Your task to perform on an android device: Open Android settings Image 0: 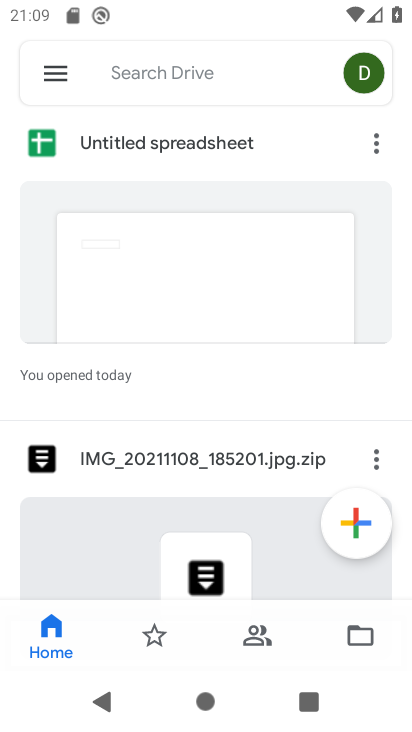
Step 0: press home button
Your task to perform on an android device: Open Android settings Image 1: 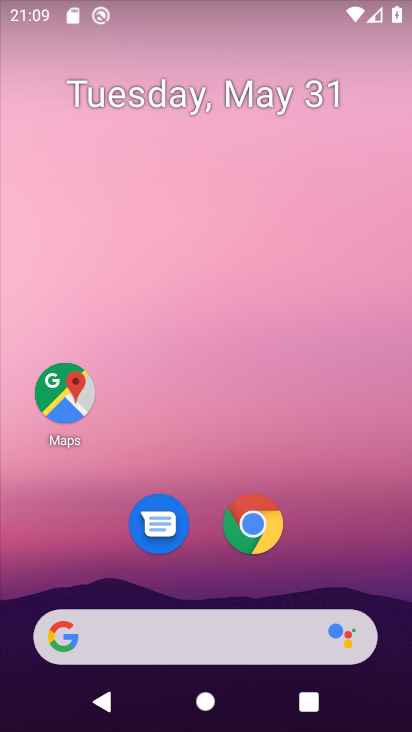
Step 1: drag from (188, 488) to (209, 19)
Your task to perform on an android device: Open Android settings Image 2: 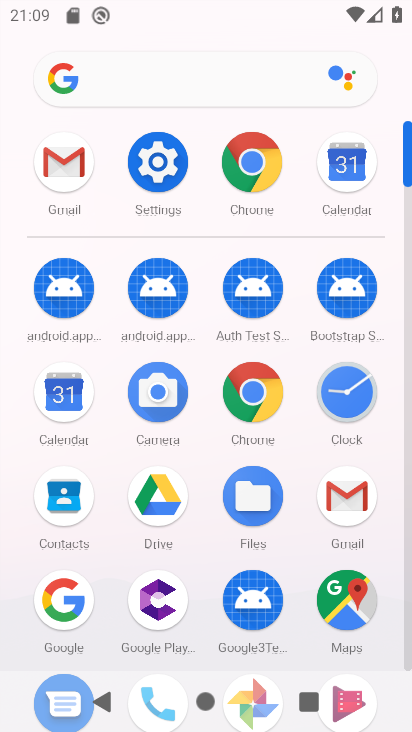
Step 2: click (158, 163)
Your task to perform on an android device: Open Android settings Image 3: 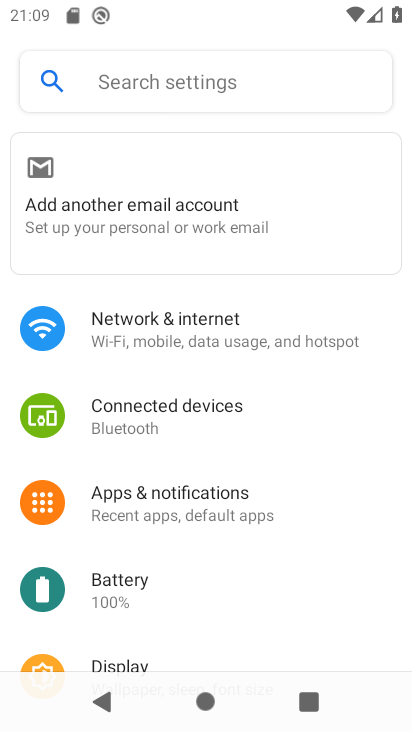
Step 3: drag from (217, 614) to (262, 92)
Your task to perform on an android device: Open Android settings Image 4: 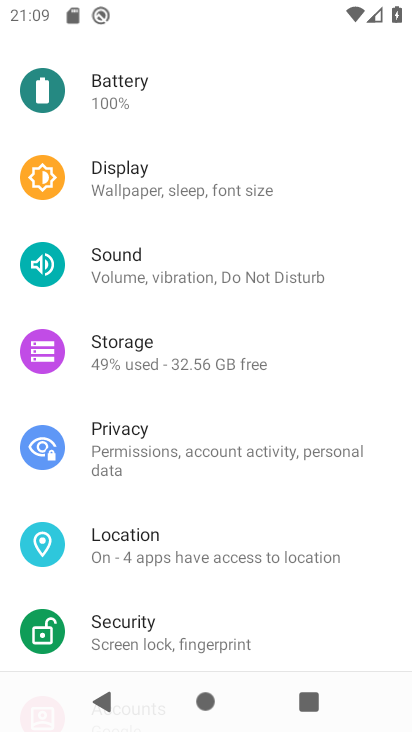
Step 4: drag from (224, 506) to (251, 58)
Your task to perform on an android device: Open Android settings Image 5: 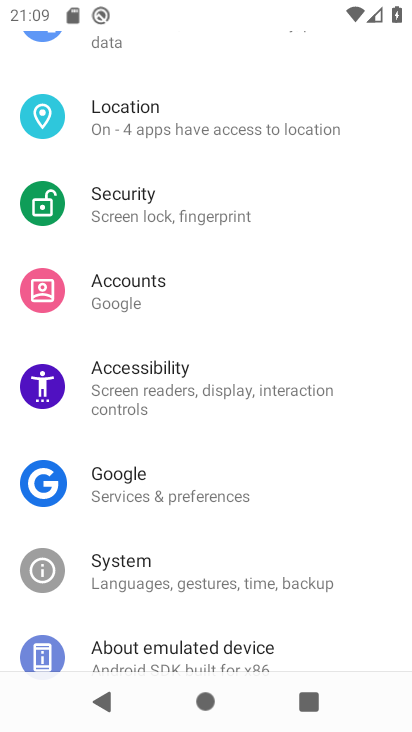
Step 5: drag from (225, 484) to (235, 297)
Your task to perform on an android device: Open Android settings Image 6: 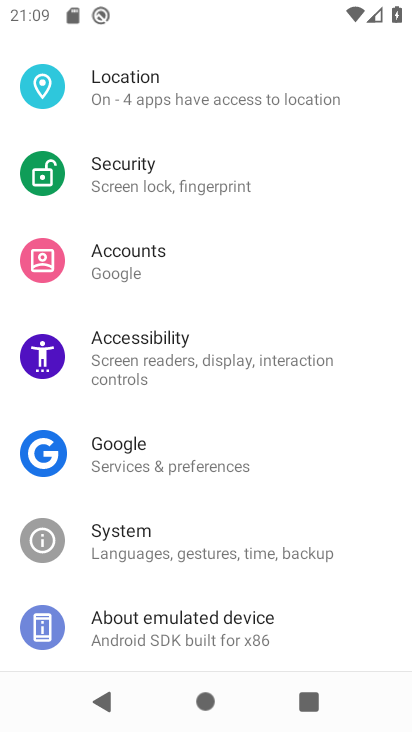
Step 6: click (208, 625)
Your task to perform on an android device: Open Android settings Image 7: 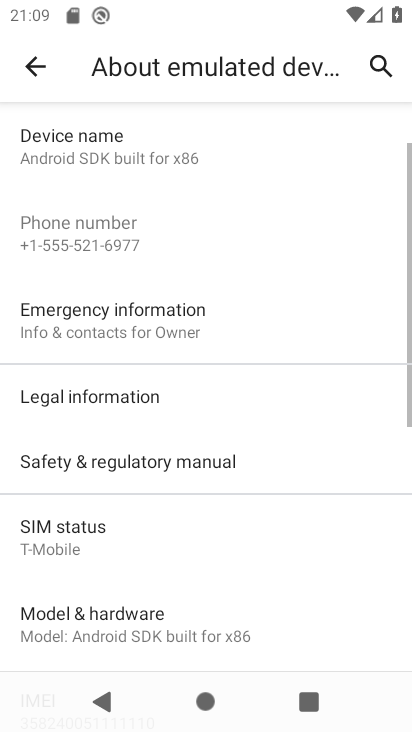
Step 7: task complete